Your task to perform on an android device: Open internet settings Image 0: 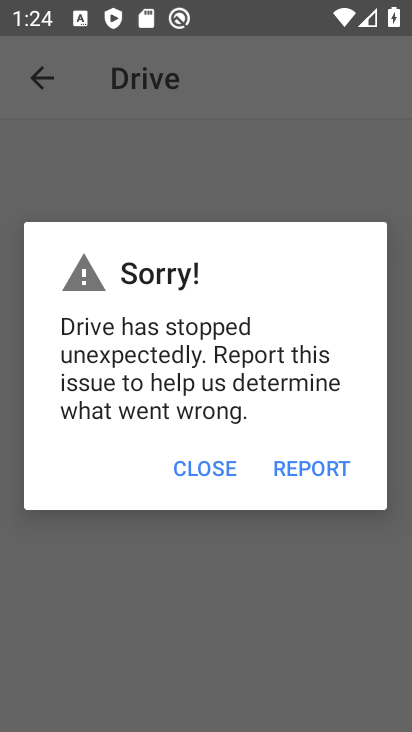
Step 0: press home button
Your task to perform on an android device: Open internet settings Image 1: 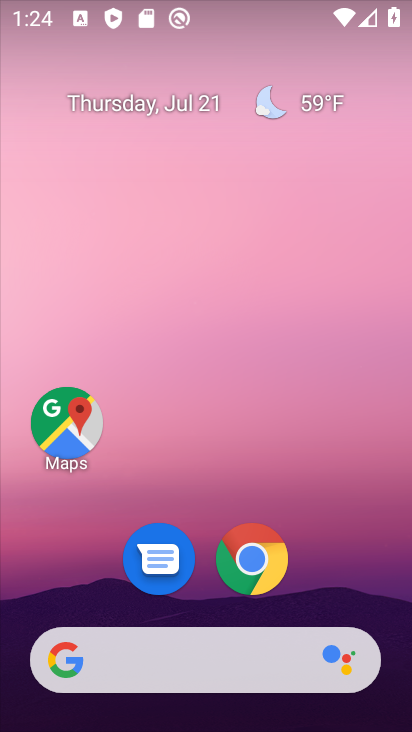
Step 1: drag from (173, 589) to (203, 153)
Your task to perform on an android device: Open internet settings Image 2: 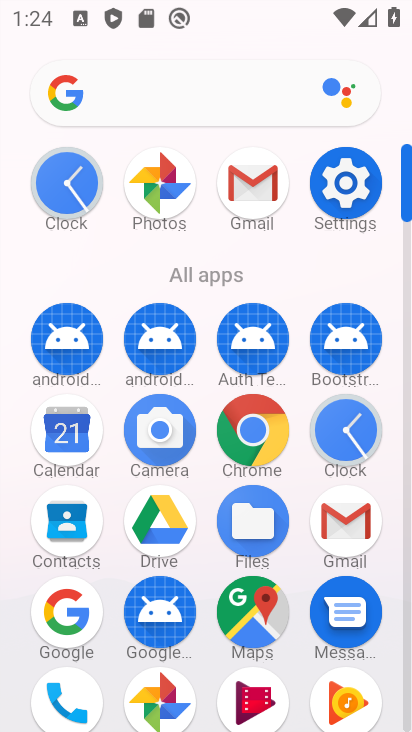
Step 2: click (358, 201)
Your task to perform on an android device: Open internet settings Image 3: 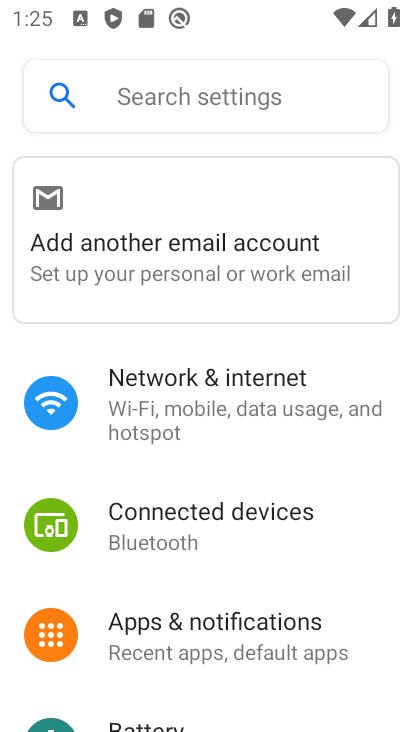
Step 3: click (224, 392)
Your task to perform on an android device: Open internet settings Image 4: 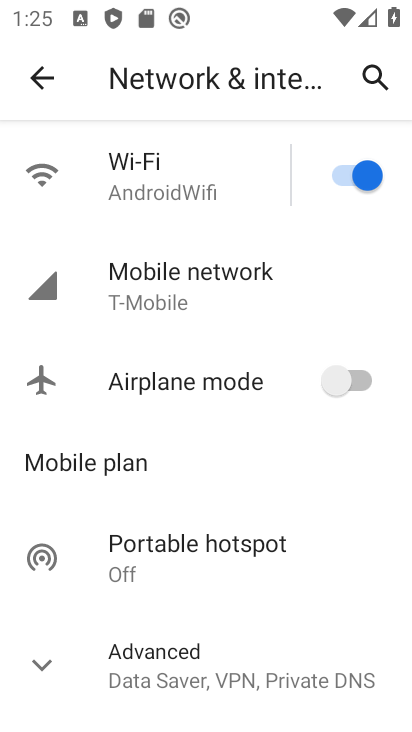
Step 4: drag from (178, 540) to (149, 315)
Your task to perform on an android device: Open internet settings Image 5: 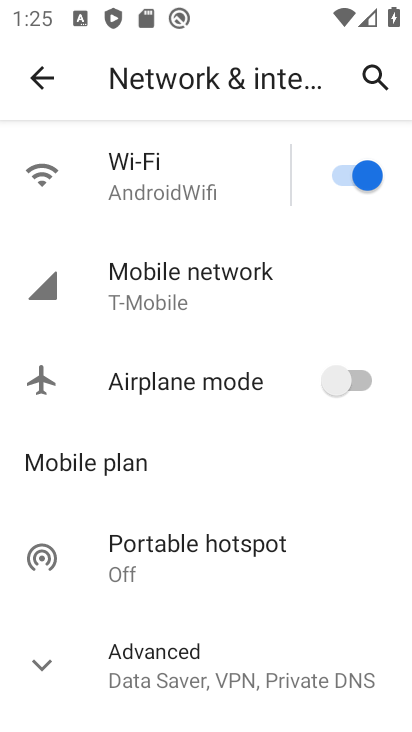
Step 5: click (140, 295)
Your task to perform on an android device: Open internet settings Image 6: 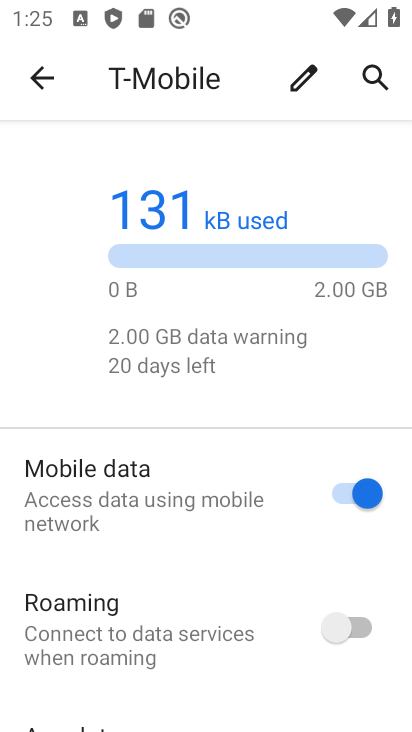
Step 6: drag from (111, 549) to (157, 182)
Your task to perform on an android device: Open internet settings Image 7: 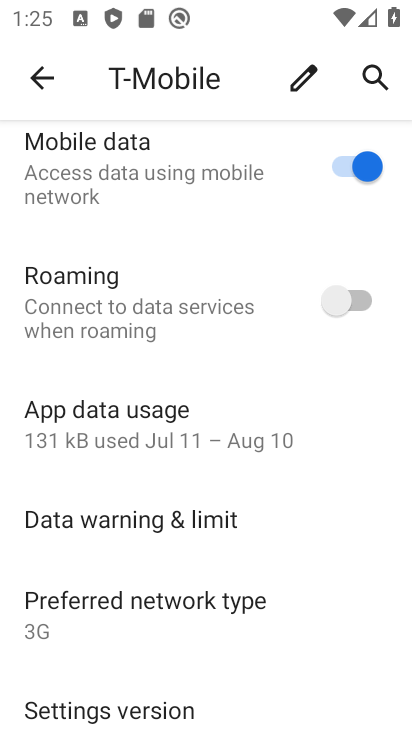
Step 7: click (185, 427)
Your task to perform on an android device: Open internet settings Image 8: 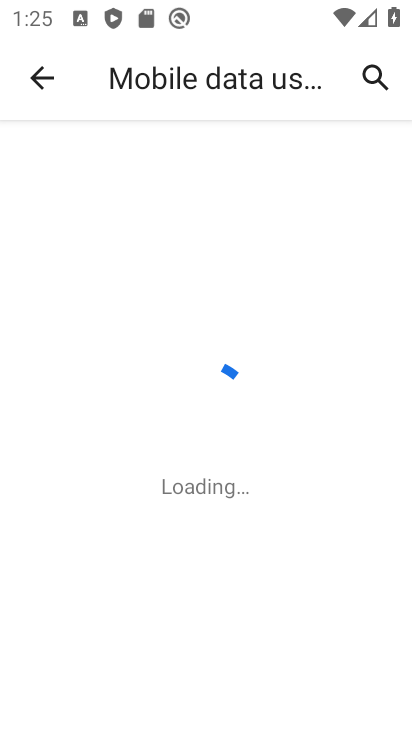
Step 8: task complete